Your task to perform on an android device: Is it going to rain this weekend? Image 0: 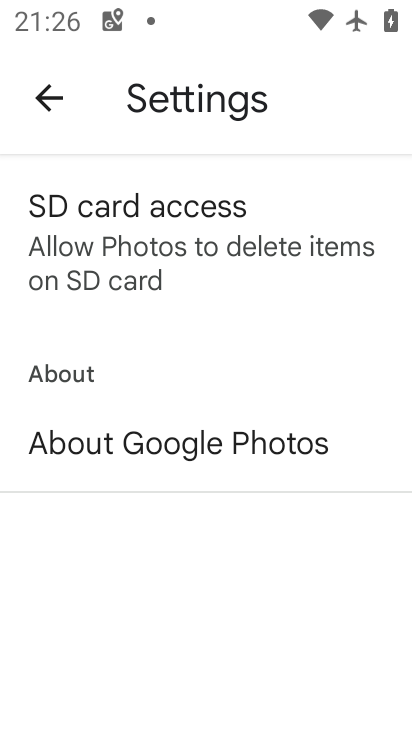
Step 0: press home button
Your task to perform on an android device: Is it going to rain this weekend? Image 1: 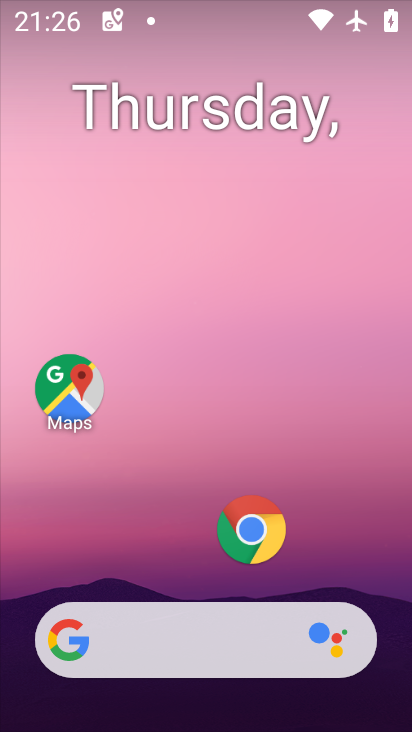
Step 1: drag from (198, 576) to (173, 1)
Your task to perform on an android device: Is it going to rain this weekend? Image 2: 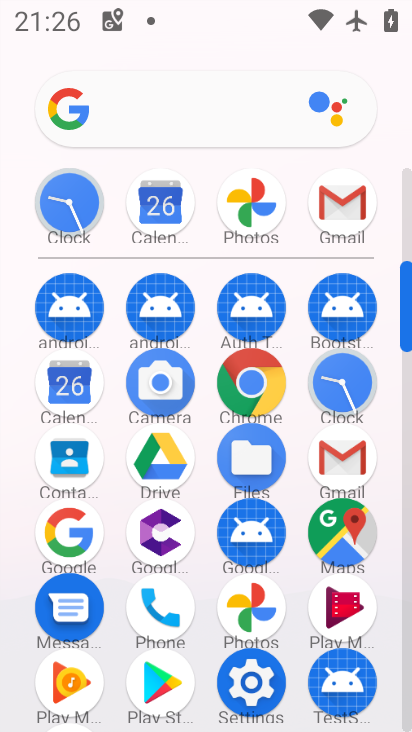
Step 2: press back button
Your task to perform on an android device: Is it going to rain this weekend? Image 3: 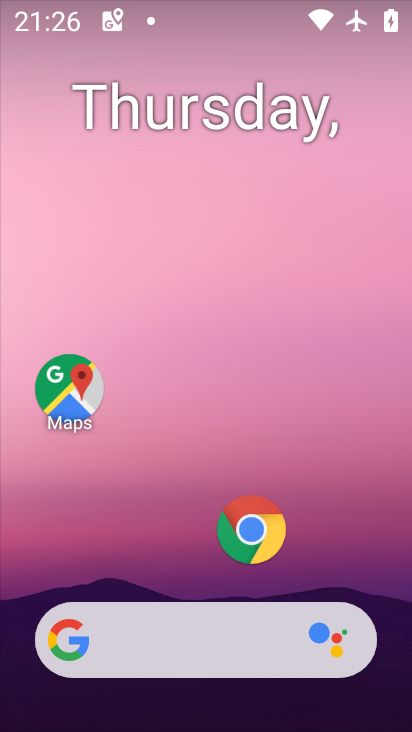
Step 3: drag from (6, 279) to (411, 294)
Your task to perform on an android device: Is it going to rain this weekend? Image 4: 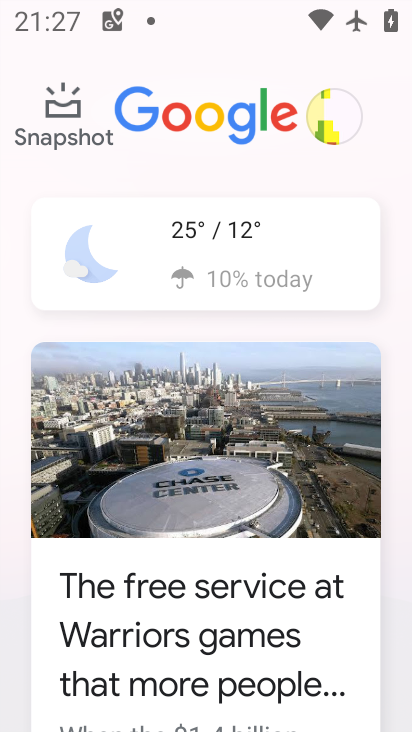
Step 4: click (227, 231)
Your task to perform on an android device: Is it going to rain this weekend? Image 5: 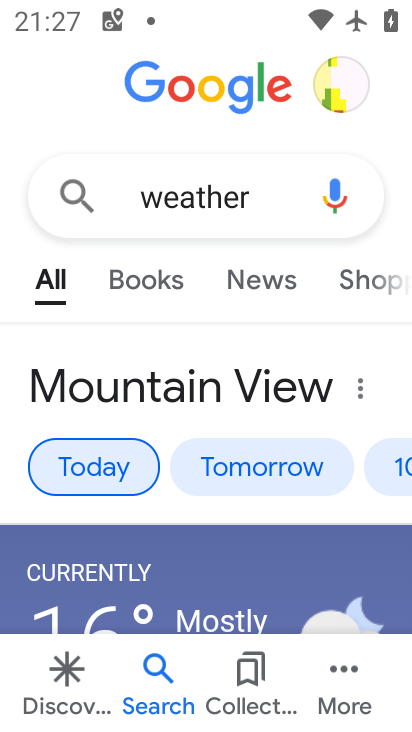
Step 5: drag from (229, 554) to (225, 324)
Your task to perform on an android device: Is it going to rain this weekend? Image 6: 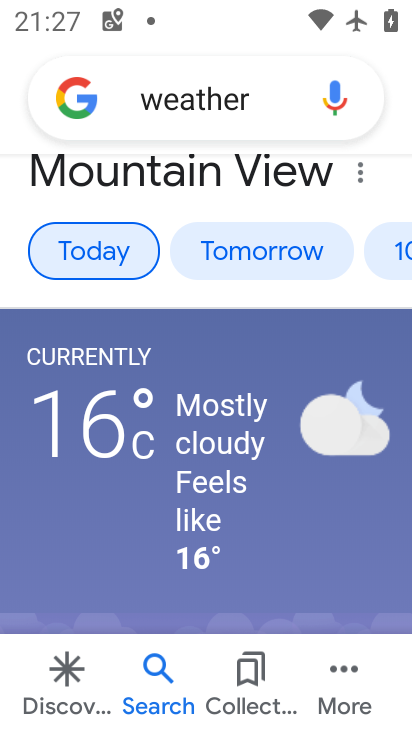
Step 6: click (396, 252)
Your task to perform on an android device: Is it going to rain this weekend? Image 7: 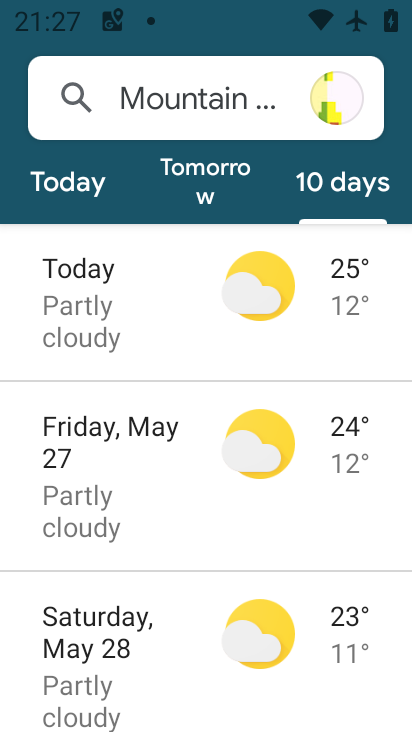
Step 7: task complete